Your task to perform on an android device: toggle notification dots Image 0: 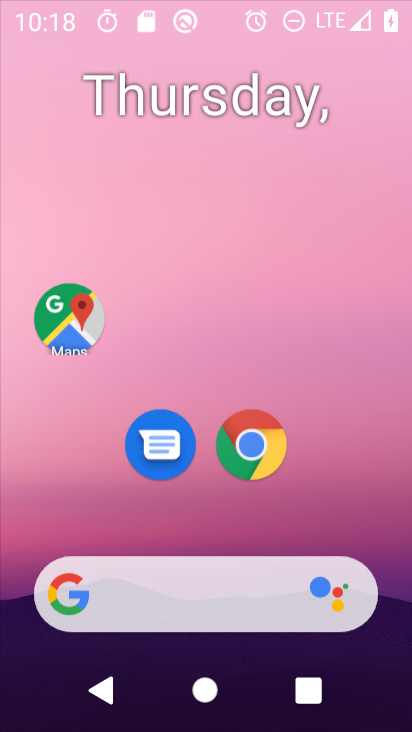
Step 0: click (249, 121)
Your task to perform on an android device: toggle notification dots Image 1: 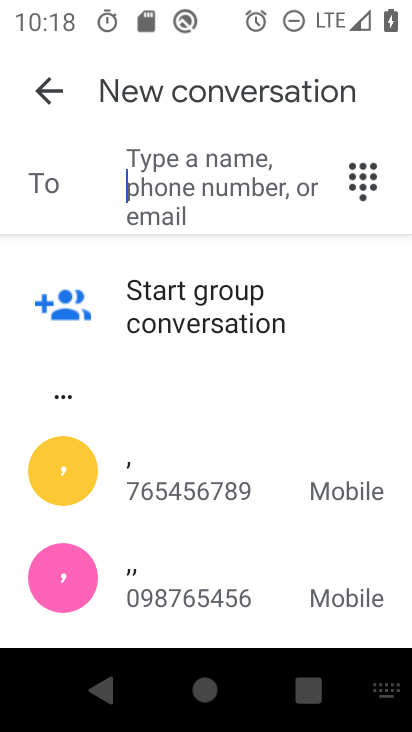
Step 1: press home button
Your task to perform on an android device: toggle notification dots Image 2: 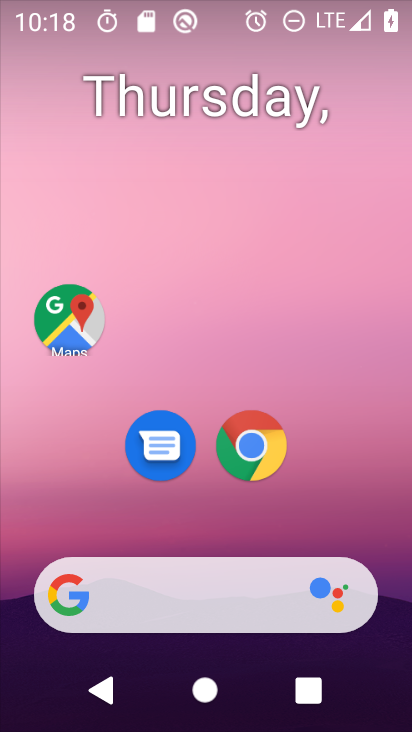
Step 2: drag from (218, 488) to (276, 222)
Your task to perform on an android device: toggle notification dots Image 3: 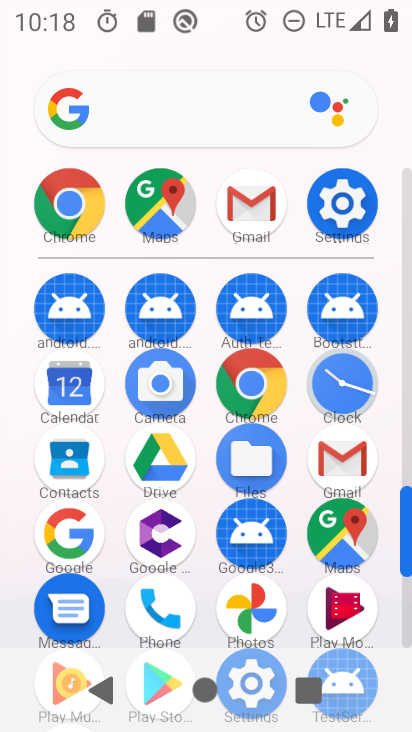
Step 3: click (338, 206)
Your task to perform on an android device: toggle notification dots Image 4: 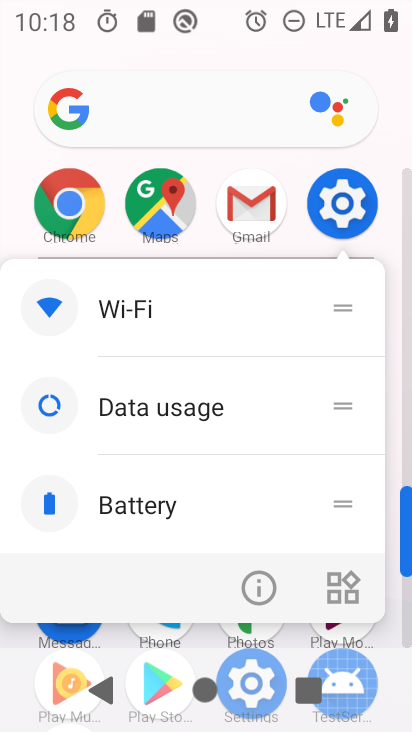
Step 4: click (251, 587)
Your task to perform on an android device: toggle notification dots Image 5: 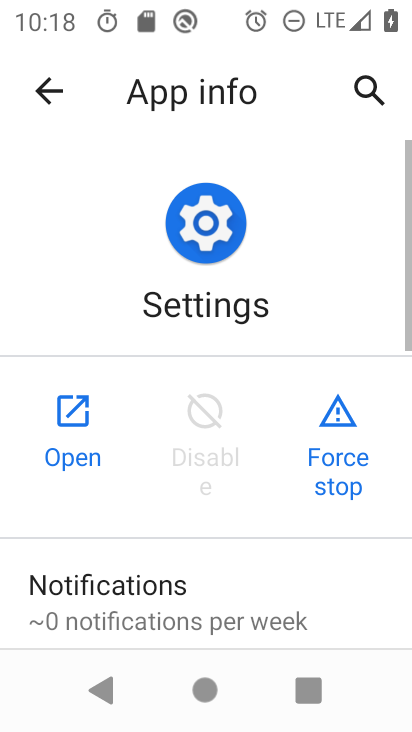
Step 5: click (58, 445)
Your task to perform on an android device: toggle notification dots Image 6: 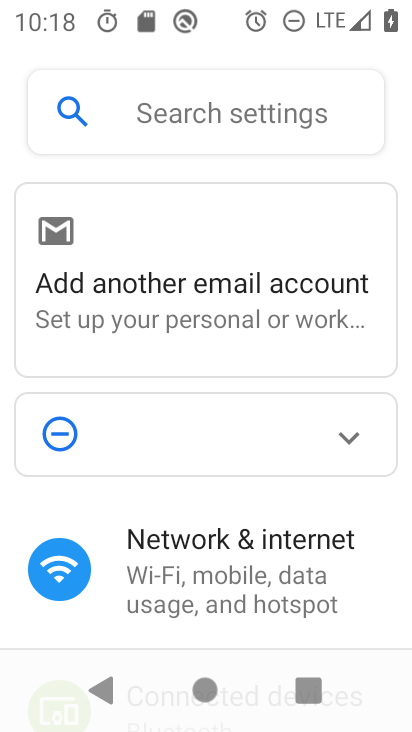
Step 6: drag from (202, 584) to (379, 38)
Your task to perform on an android device: toggle notification dots Image 7: 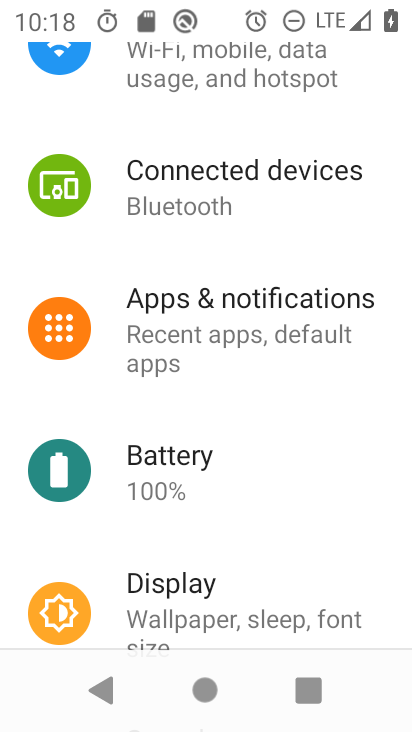
Step 7: click (245, 327)
Your task to perform on an android device: toggle notification dots Image 8: 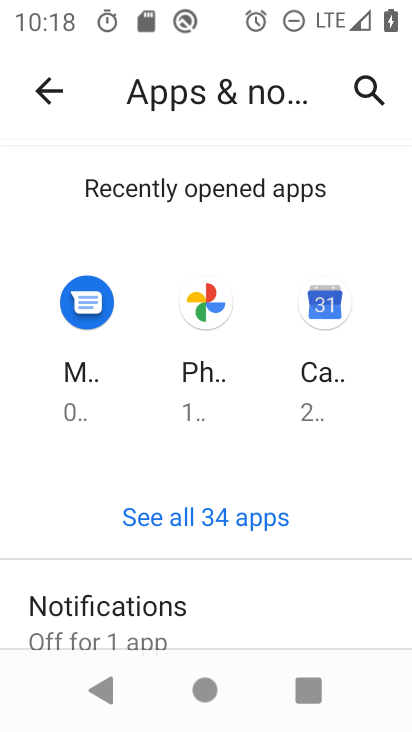
Step 8: click (213, 617)
Your task to perform on an android device: toggle notification dots Image 9: 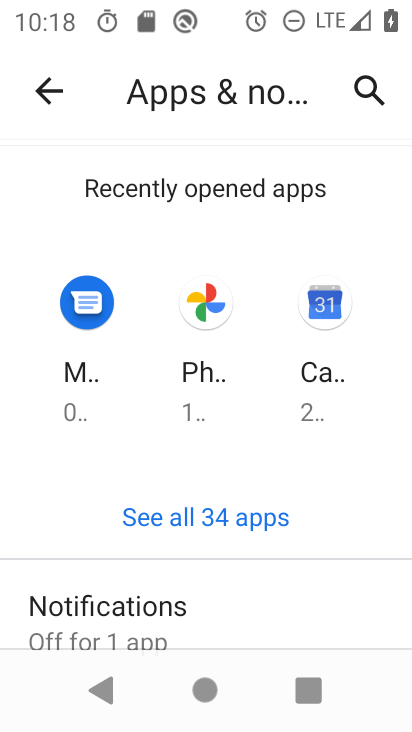
Step 9: drag from (205, 596) to (331, 277)
Your task to perform on an android device: toggle notification dots Image 10: 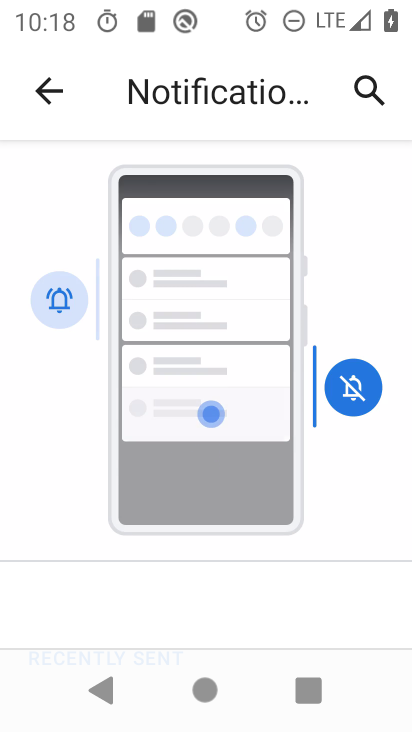
Step 10: drag from (241, 600) to (300, 210)
Your task to perform on an android device: toggle notification dots Image 11: 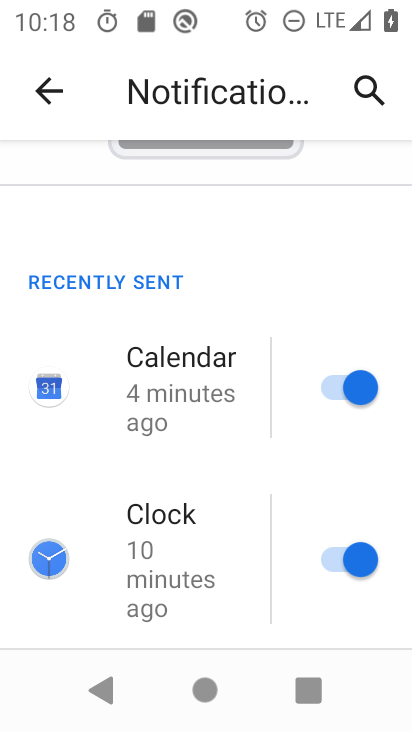
Step 11: drag from (250, 521) to (293, 195)
Your task to perform on an android device: toggle notification dots Image 12: 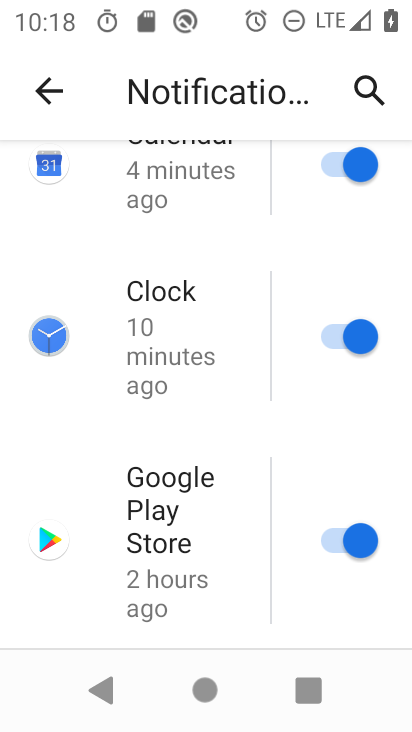
Step 12: drag from (216, 573) to (258, 215)
Your task to perform on an android device: toggle notification dots Image 13: 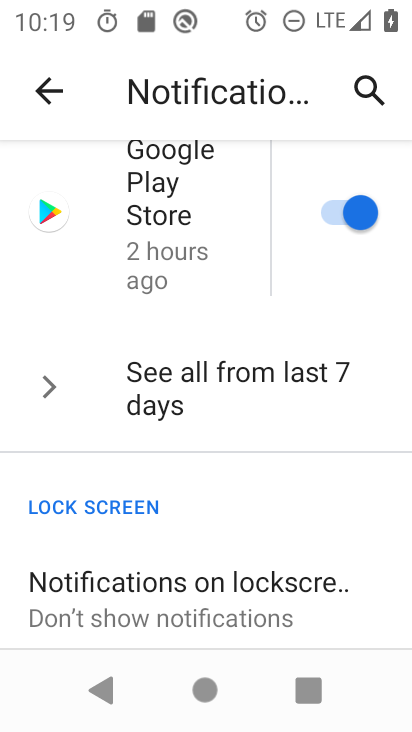
Step 13: drag from (249, 630) to (294, 324)
Your task to perform on an android device: toggle notification dots Image 14: 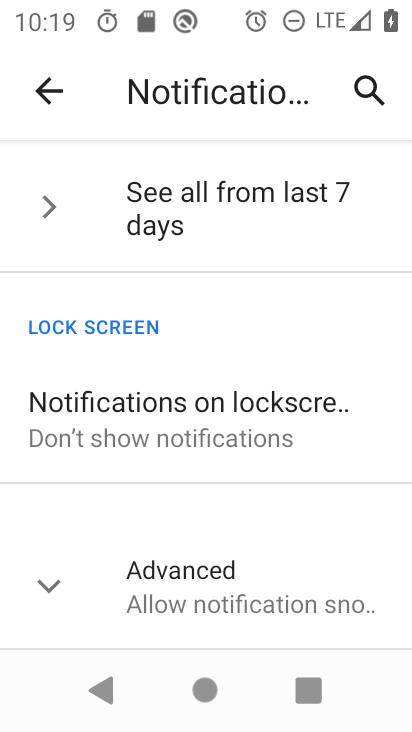
Step 14: click (199, 593)
Your task to perform on an android device: toggle notification dots Image 15: 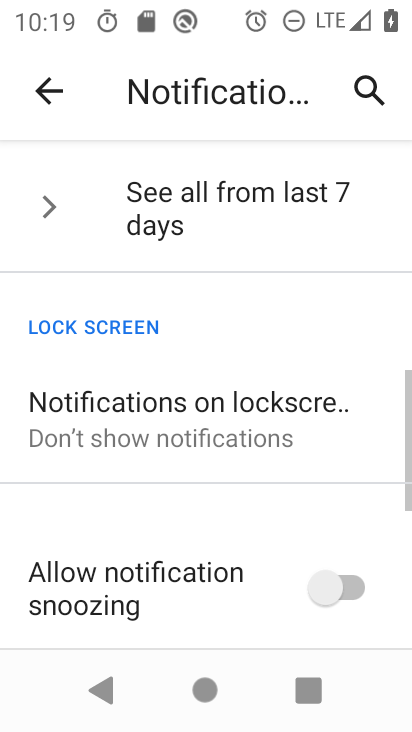
Step 15: drag from (257, 531) to (354, 180)
Your task to perform on an android device: toggle notification dots Image 16: 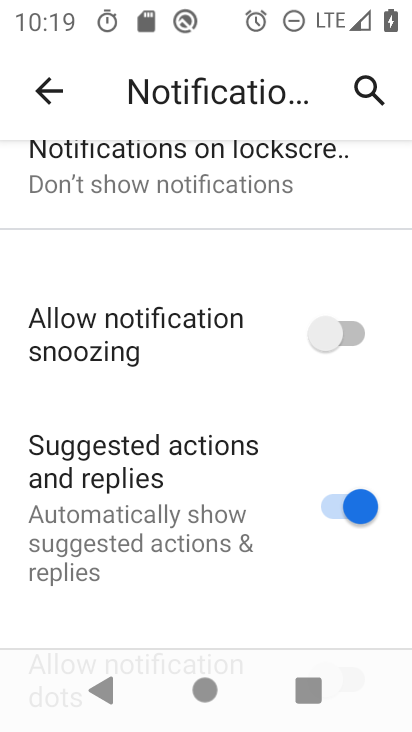
Step 16: drag from (204, 572) to (225, 214)
Your task to perform on an android device: toggle notification dots Image 17: 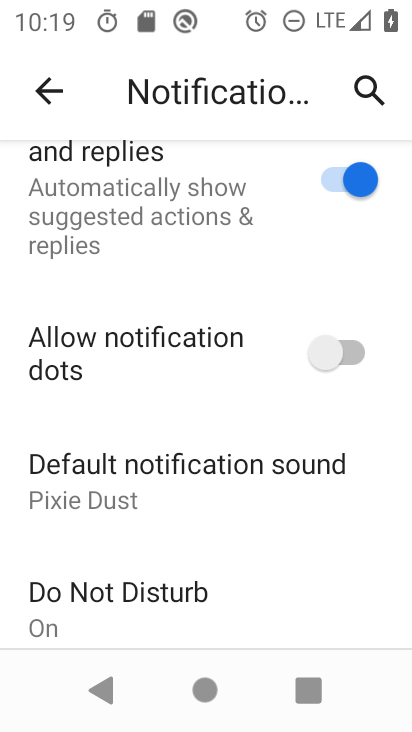
Step 17: click (331, 333)
Your task to perform on an android device: toggle notification dots Image 18: 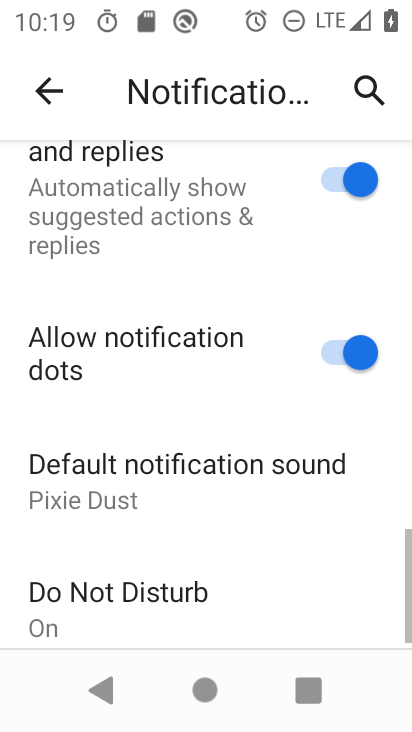
Step 18: task complete